Your task to perform on an android device: all mails in gmail Image 0: 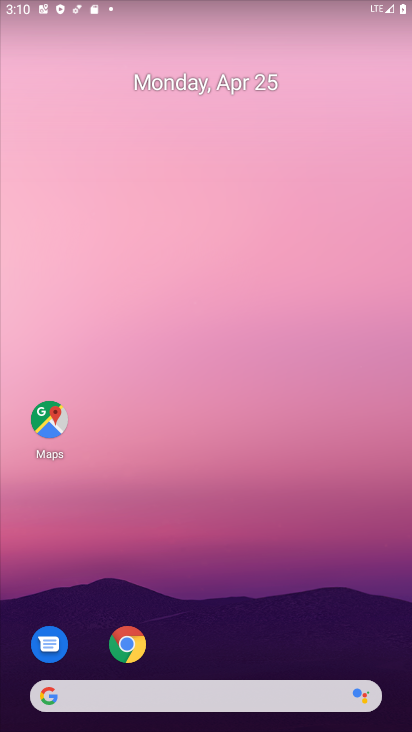
Step 0: click (204, 122)
Your task to perform on an android device: all mails in gmail Image 1: 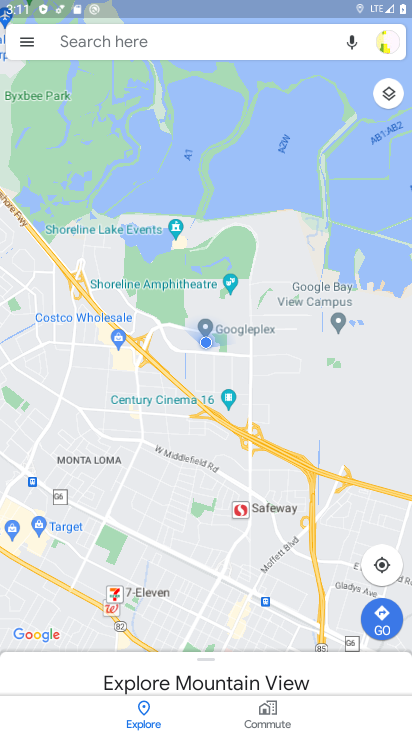
Step 1: press home button
Your task to perform on an android device: all mails in gmail Image 2: 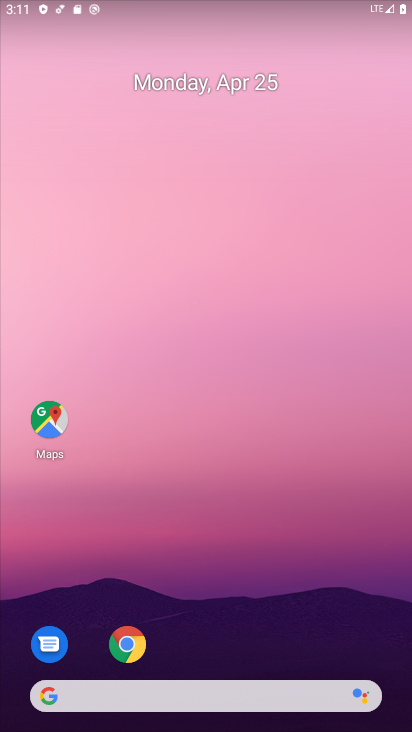
Step 2: drag from (225, 640) to (233, 58)
Your task to perform on an android device: all mails in gmail Image 3: 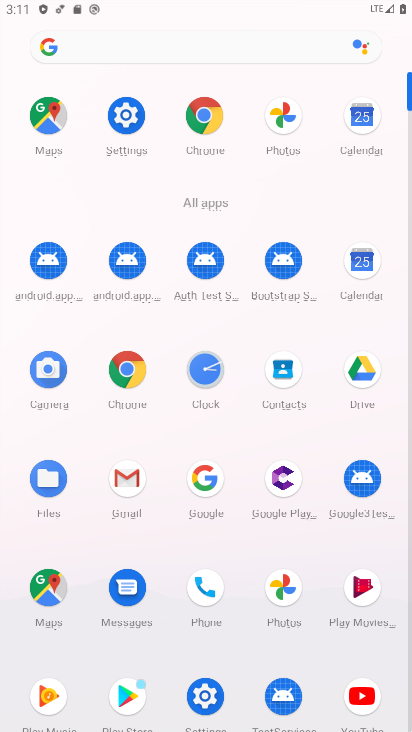
Step 3: click (133, 489)
Your task to perform on an android device: all mails in gmail Image 4: 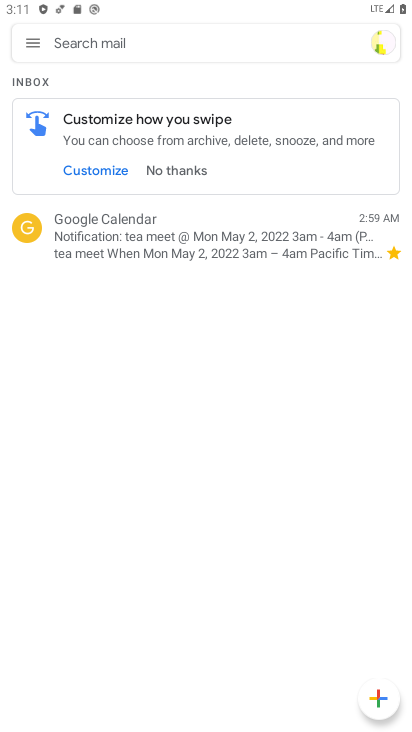
Step 4: click (35, 41)
Your task to perform on an android device: all mails in gmail Image 5: 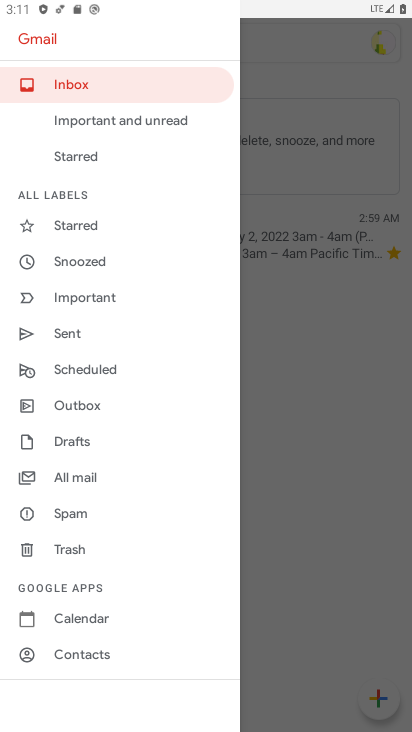
Step 5: click (95, 480)
Your task to perform on an android device: all mails in gmail Image 6: 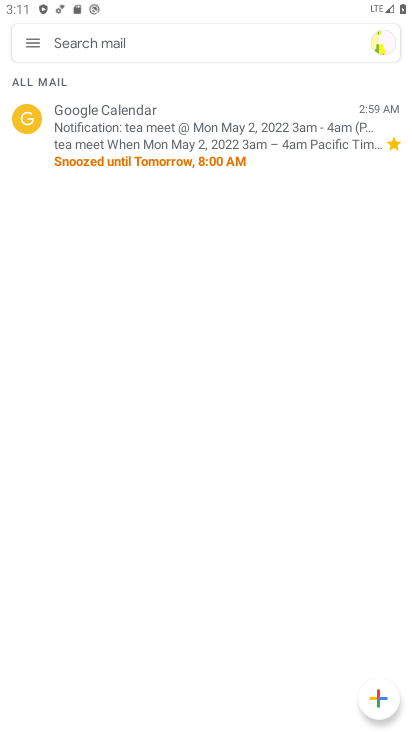
Step 6: task complete